Your task to perform on an android device: Search for vegetarian restaurants on Maps Image 0: 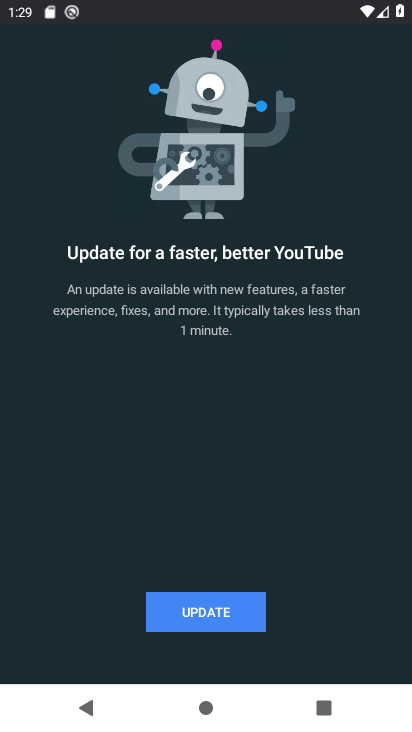
Step 0: press home button
Your task to perform on an android device: Search for vegetarian restaurants on Maps Image 1: 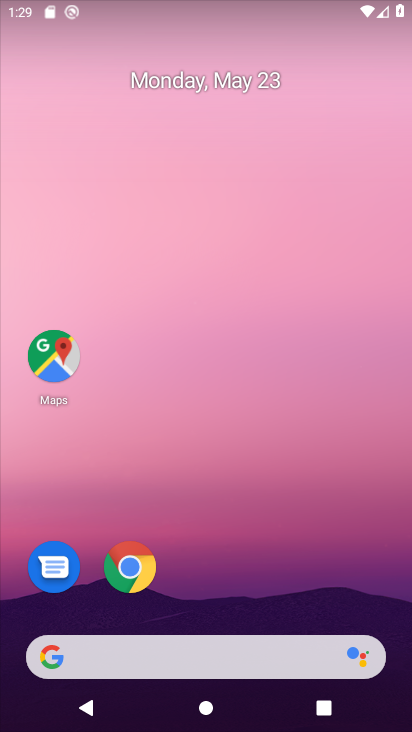
Step 1: drag from (294, 602) to (291, 143)
Your task to perform on an android device: Search for vegetarian restaurants on Maps Image 2: 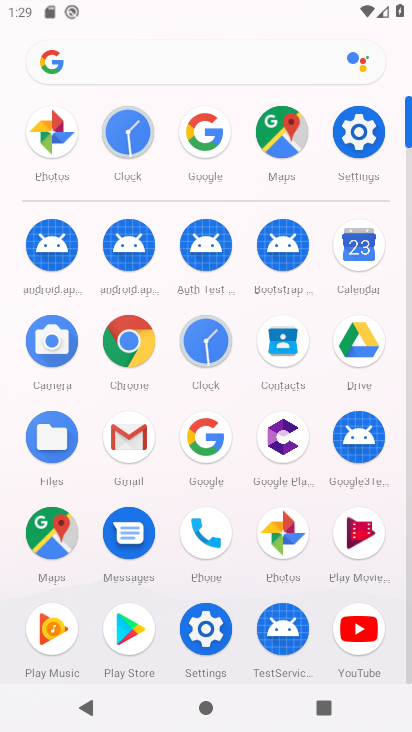
Step 2: click (51, 547)
Your task to perform on an android device: Search for vegetarian restaurants on Maps Image 3: 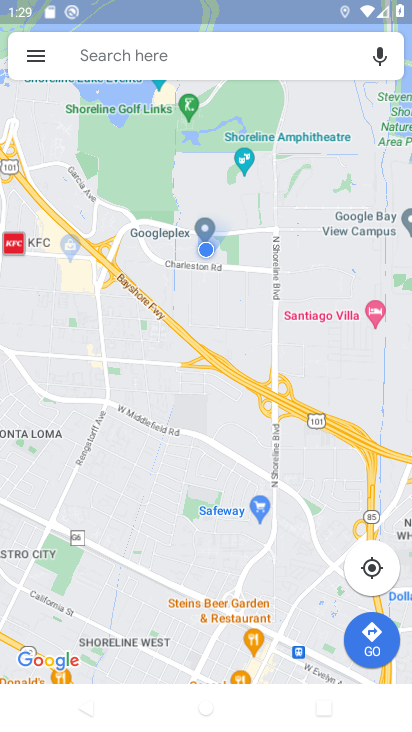
Step 3: click (106, 62)
Your task to perform on an android device: Search for vegetarian restaurants on Maps Image 4: 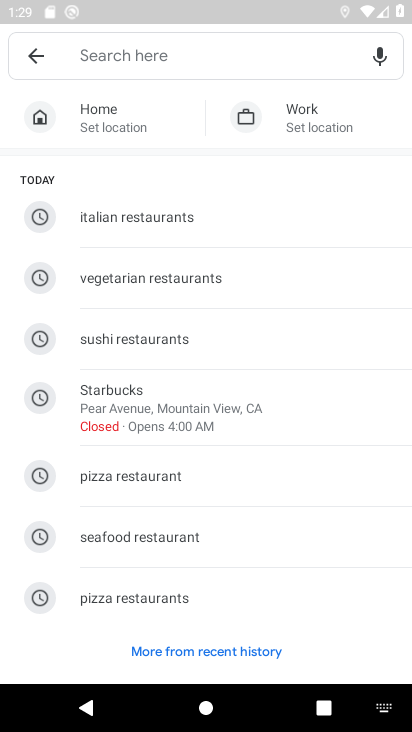
Step 4: click (151, 285)
Your task to perform on an android device: Search for vegetarian restaurants on Maps Image 5: 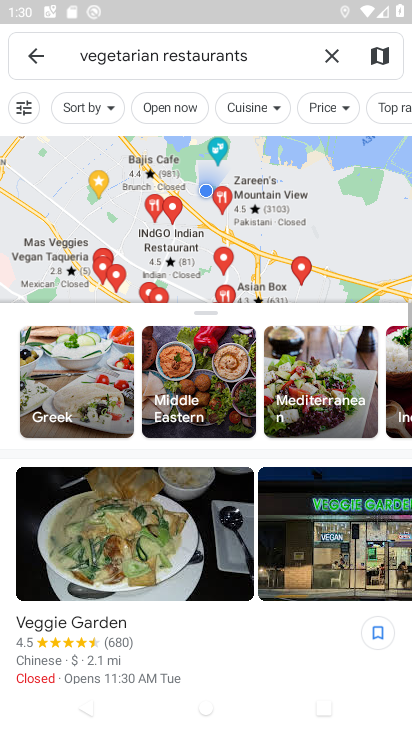
Step 5: task complete